Your task to perform on an android device: Open the calendar app, open the side menu, and click the "Day" option Image 0: 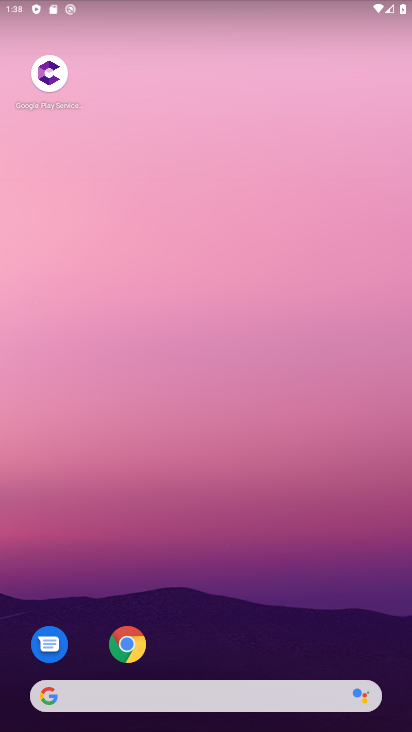
Step 0: drag from (246, 621) to (327, 13)
Your task to perform on an android device: Open the calendar app, open the side menu, and click the "Day" option Image 1: 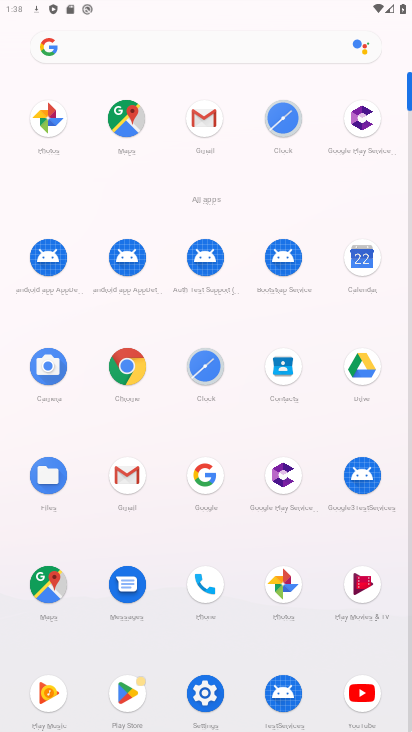
Step 1: click (360, 251)
Your task to perform on an android device: Open the calendar app, open the side menu, and click the "Day" option Image 2: 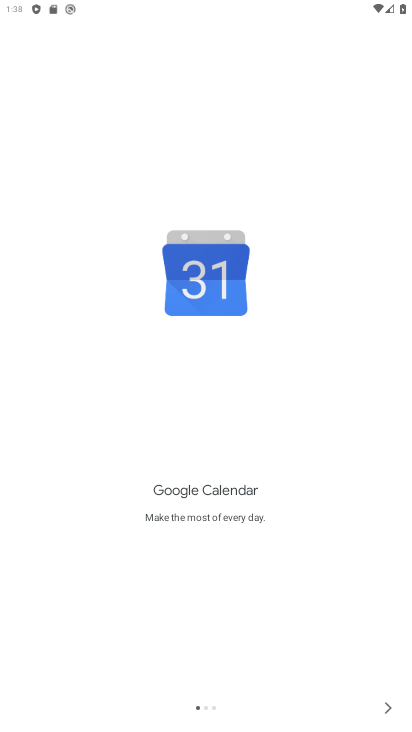
Step 2: click (390, 710)
Your task to perform on an android device: Open the calendar app, open the side menu, and click the "Day" option Image 3: 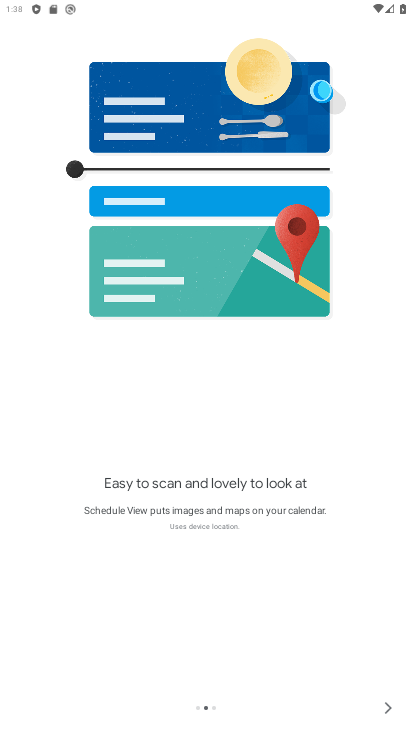
Step 3: click (390, 710)
Your task to perform on an android device: Open the calendar app, open the side menu, and click the "Day" option Image 4: 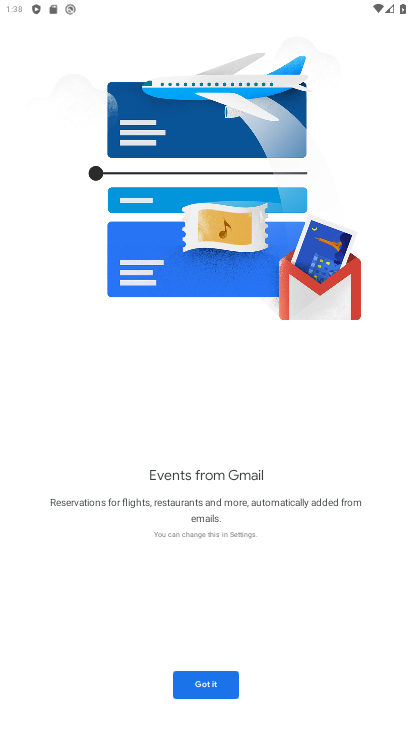
Step 4: click (205, 683)
Your task to perform on an android device: Open the calendar app, open the side menu, and click the "Day" option Image 5: 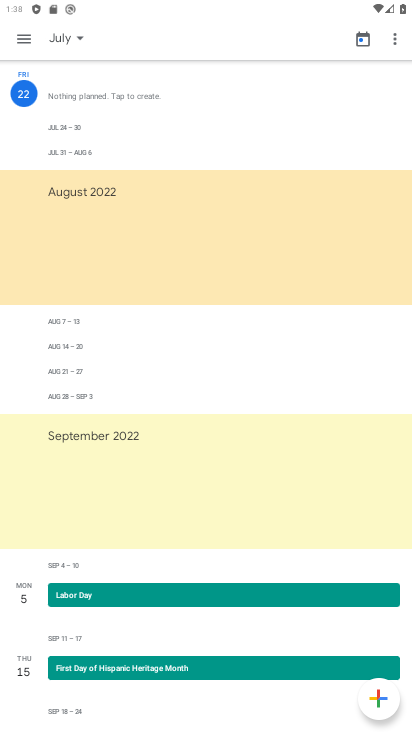
Step 5: click (16, 31)
Your task to perform on an android device: Open the calendar app, open the side menu, and click the "Day" option Image 6: 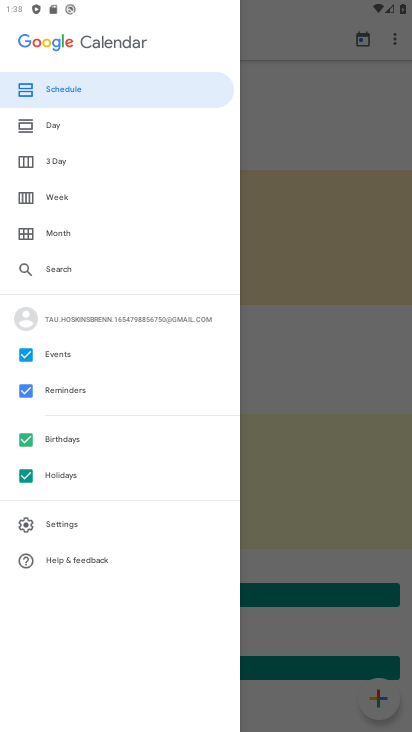
Step 6: click (39, 119)
Your task to perform on an android device: Open the calendar app, open the side menu, and click the "Day" option Image 7: 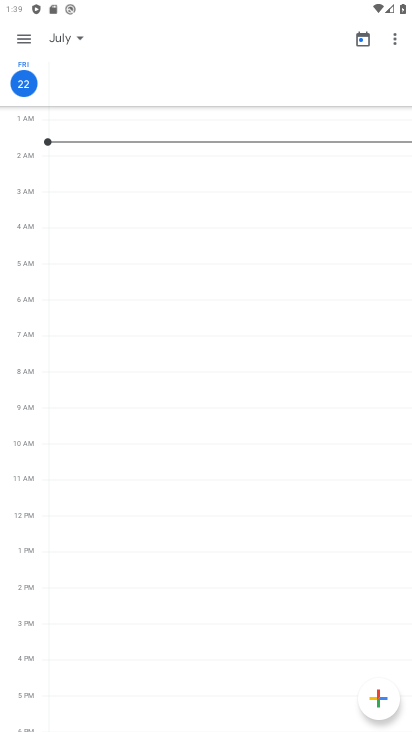
Step 7: task complete